Your task to perform on an android device: Go to ESPN.com Image 0: 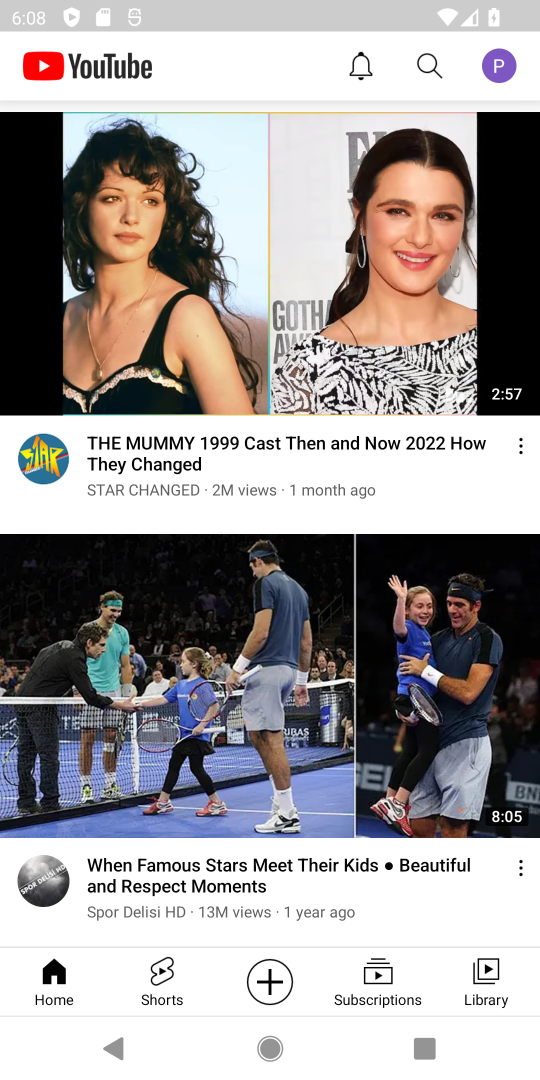
Step 0: press home button
Your task to perform on an android device: Go to ESPN.com Image 1: 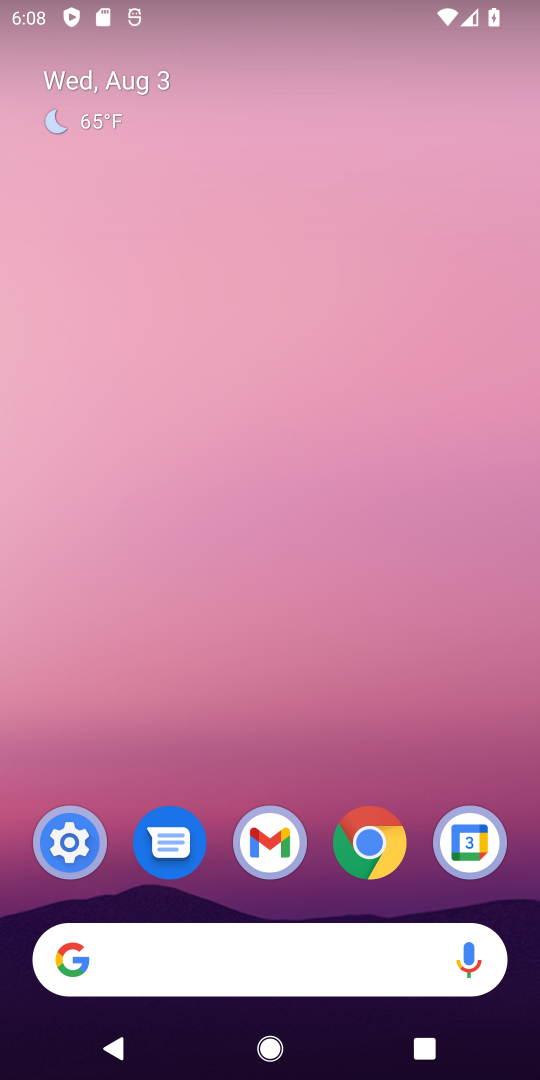
Step 1: click (152, 948)
Your task to perform on an android device: Go to ESPN.com Image 2: 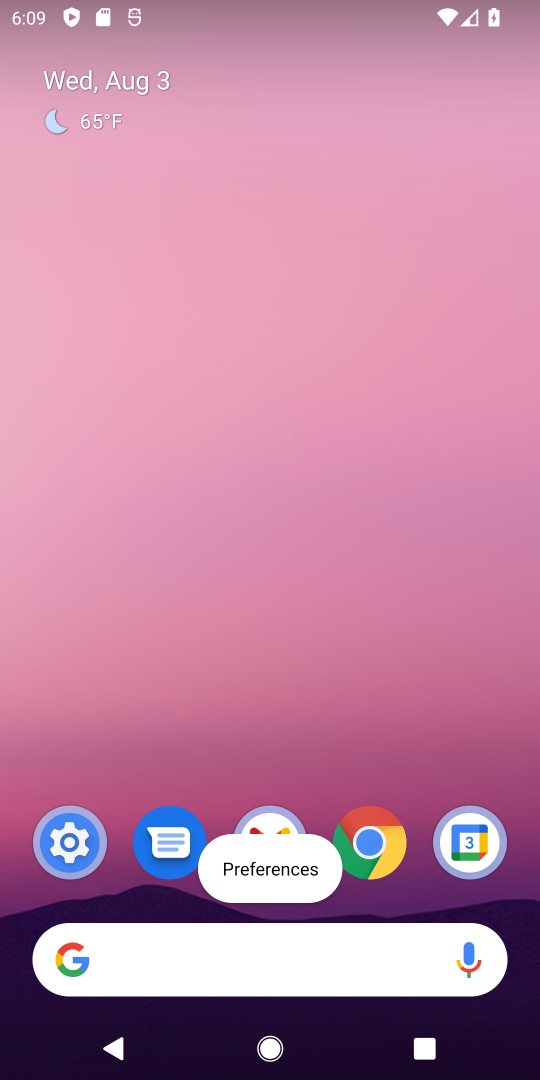
Step 2: click (152, 948)
Your task to perform on an android device: Go to ESPN.com Image 3: 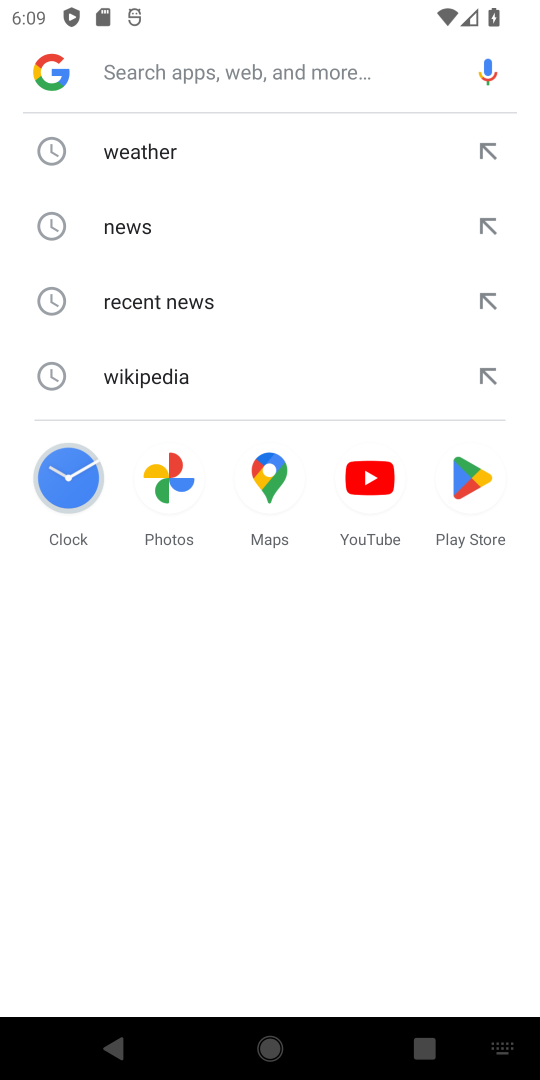
Step 3: type "espn.com"
Your task to perform on an android device: Go to ESPN.com Image 4: 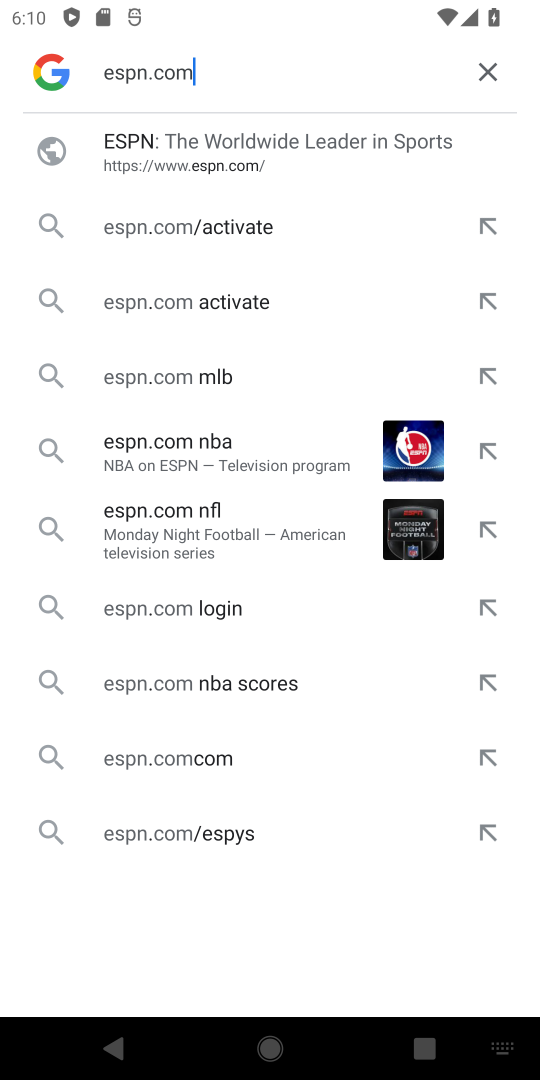
Step 4: click (208, 149)
Your task to perform on an android device: Go to ESPN.com Image 5: 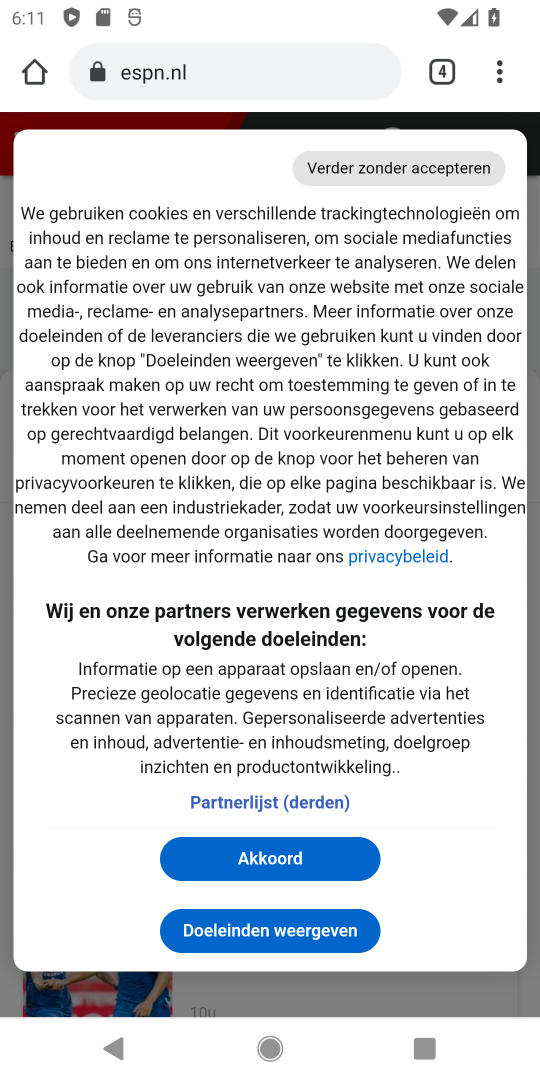
Step 5: task complete